Your task to perform on an android device: find snoozed emails in the gmail app Image 0: 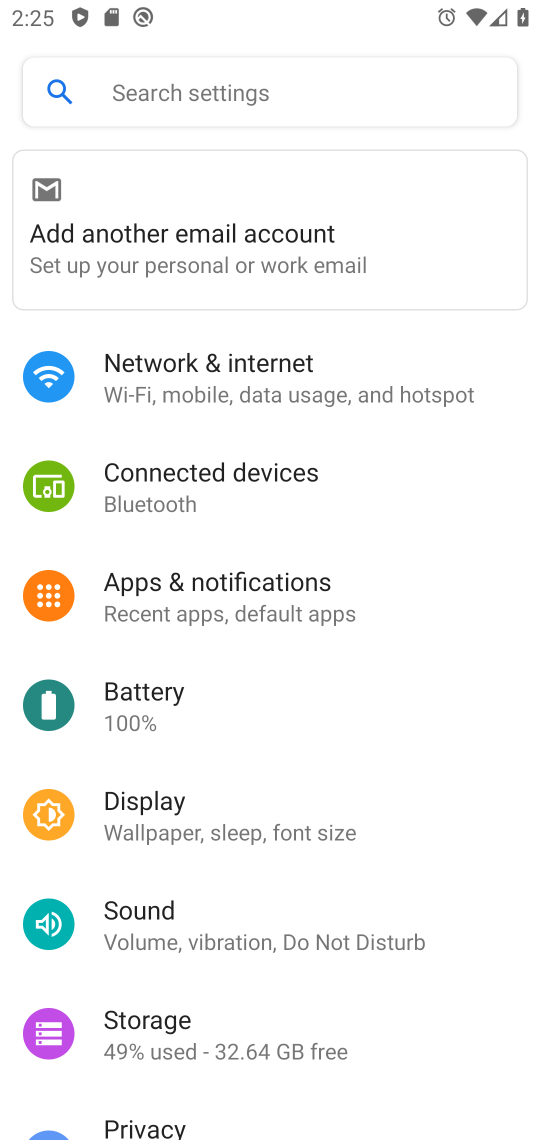
Step 0: press home button
Your task to perform on an android device: find snoozed emails in the gmail app Image 1: 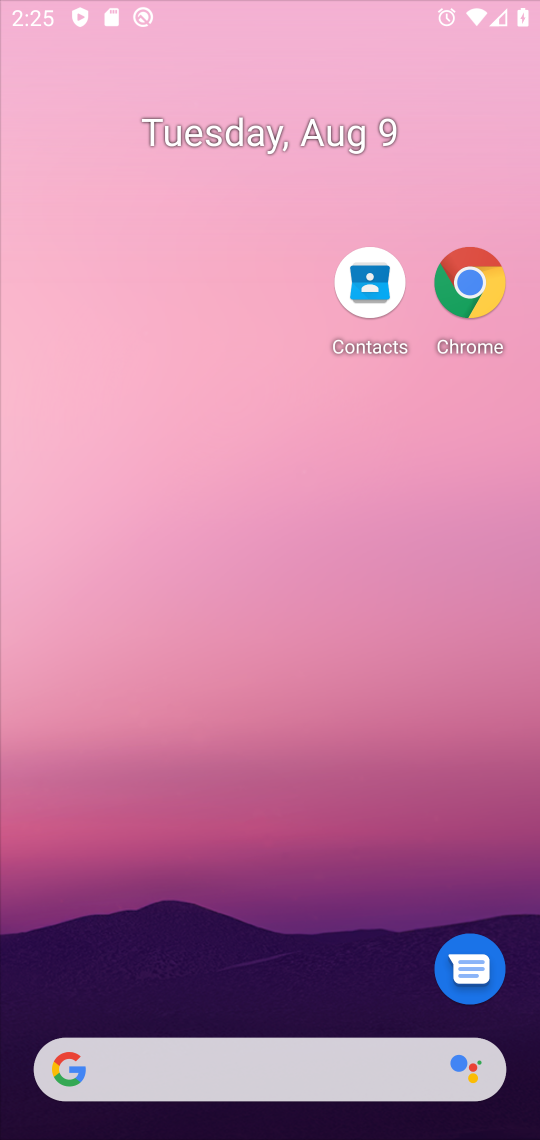
Step 1: drag from (384, 931) to (443, 341)
Your task to perform on an android device: find snoozed emails in the gmail app Image 2: 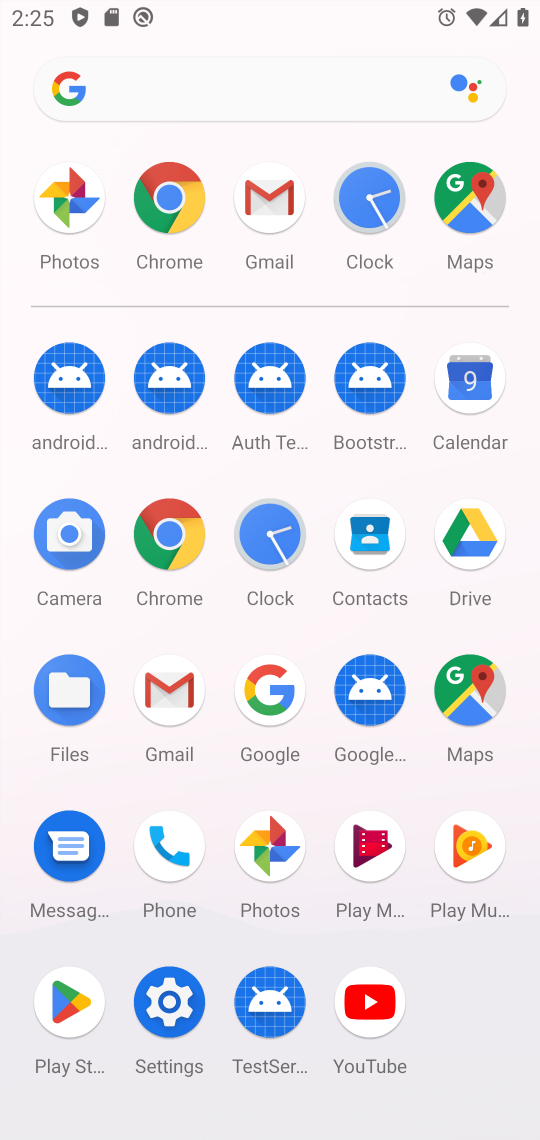
Step 2: click (180, 704)
Your task to perform on an android device: find snoozed emails in the gmail app Image 3: 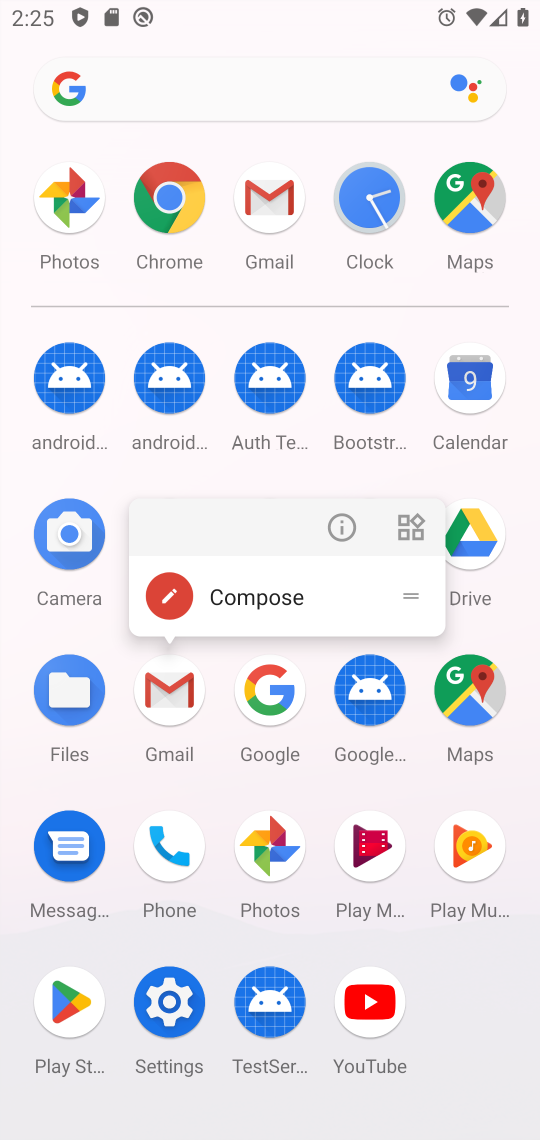
Step 3: click (354, 527)
Your task to perform on an android device: find snoozed emails in the gmail app Image 4: 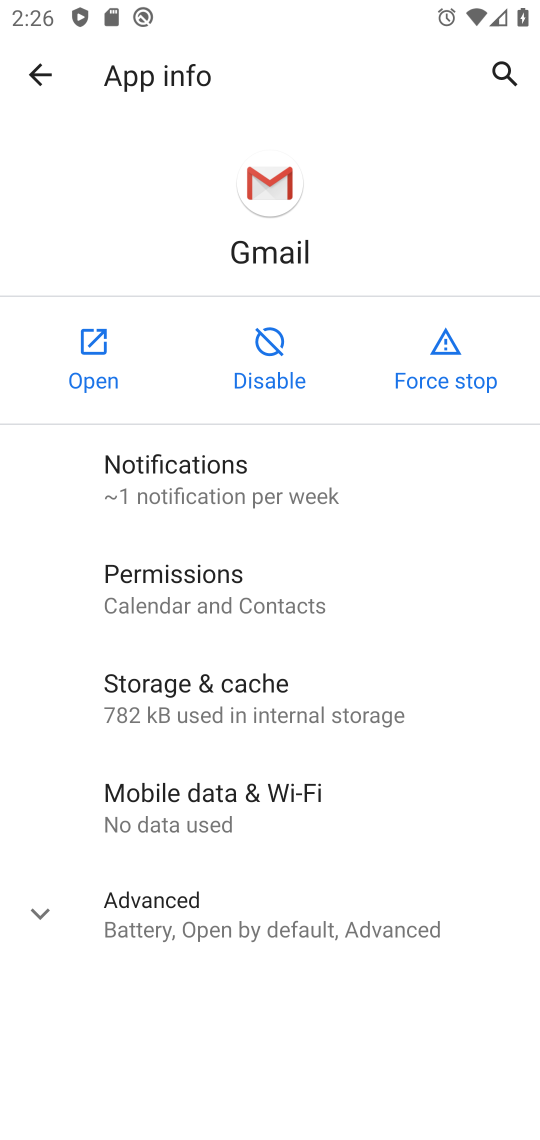
Step 4: click (93, 371)
Your task to perform on an android device: find snoozed emails in the gmail app Image 5: 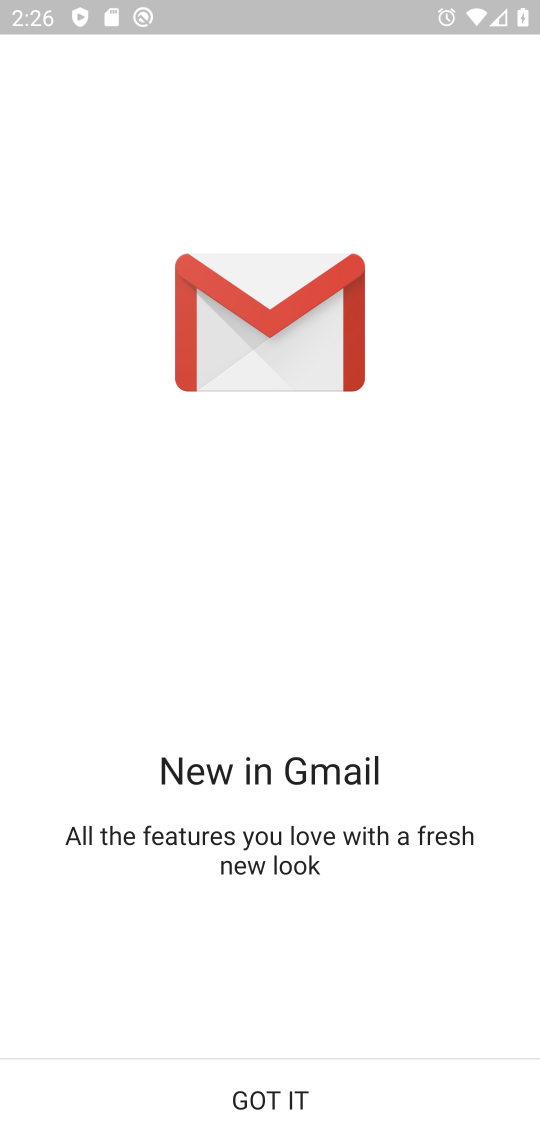
Step 5: click (236, 1084)
Your task to perform on an android device: find snoozed emails in the gmail app Image 6: 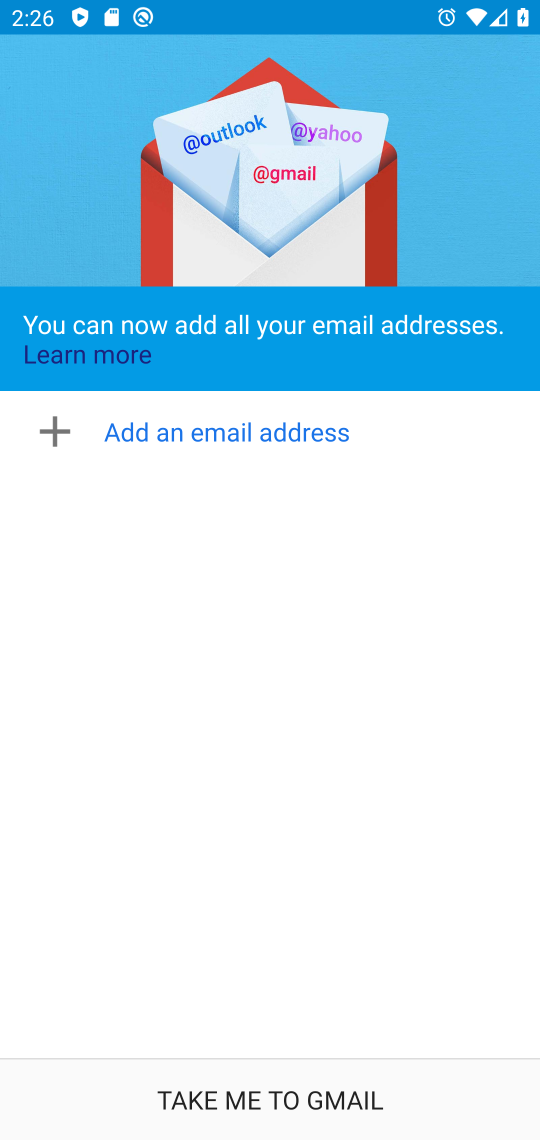
Step 6: click (240, 1048)
Your task to perform on an android device: find snoozed emails in the gmail app Image 7: 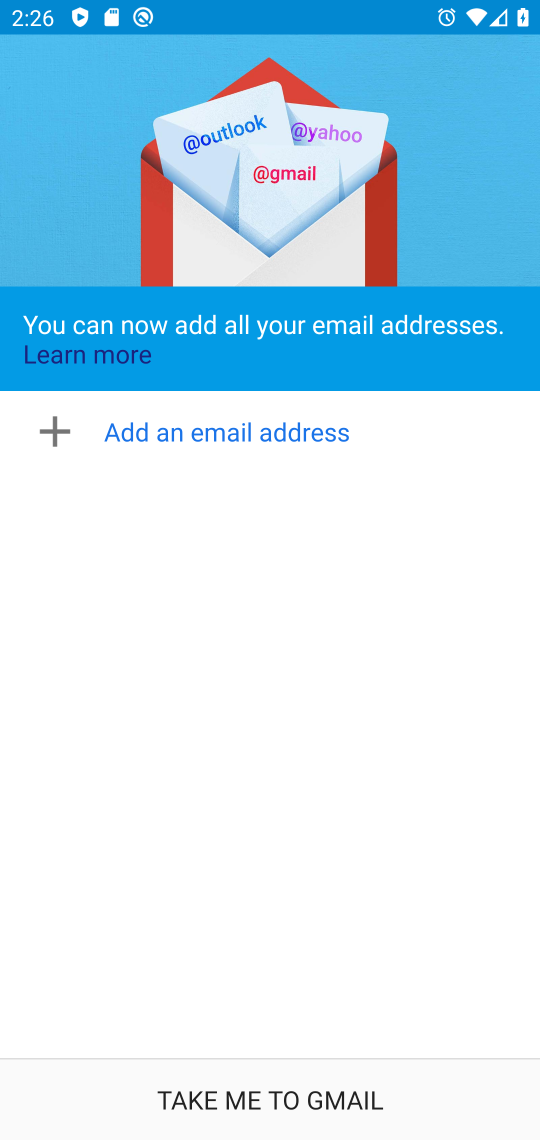
Step 7: task complete